Your task to perform on an android device: turn pop-ups off in chrome Image 0: 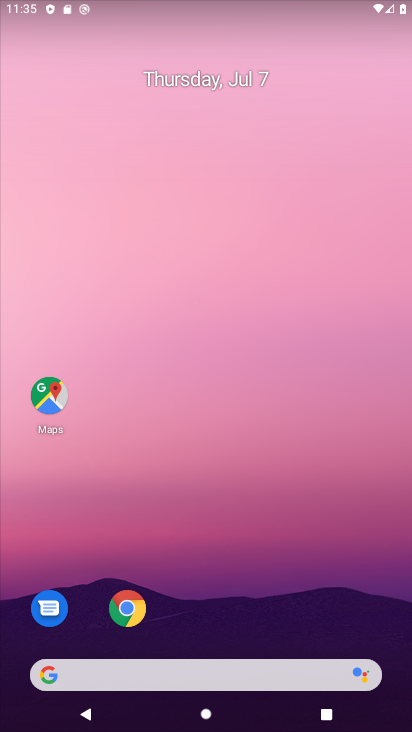
Step 0: click (138, 599)
Your task to perform on an android device: turn pop-ups off in chrome Image 1: 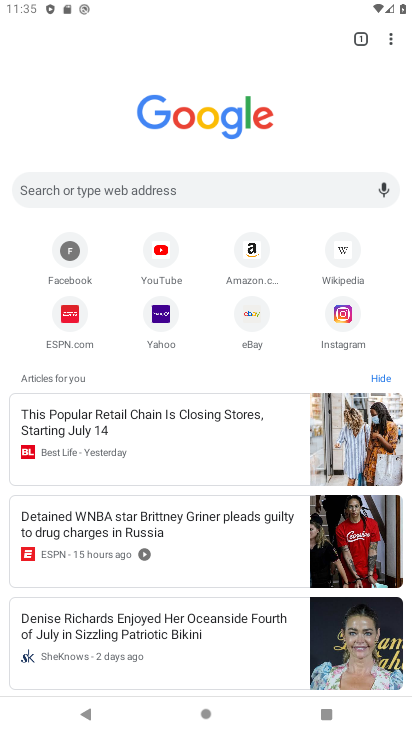
Step 1: click (390, 49)
Your task to perform on an android device: turn pop-ups off in chrome Image 2: 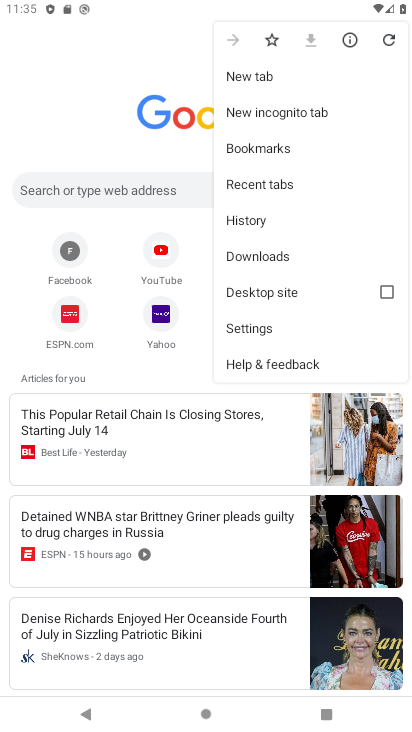
Step 2: click (257, 322)
Your task to perform on an android device: turn pop-ups off in chrome Image 3: 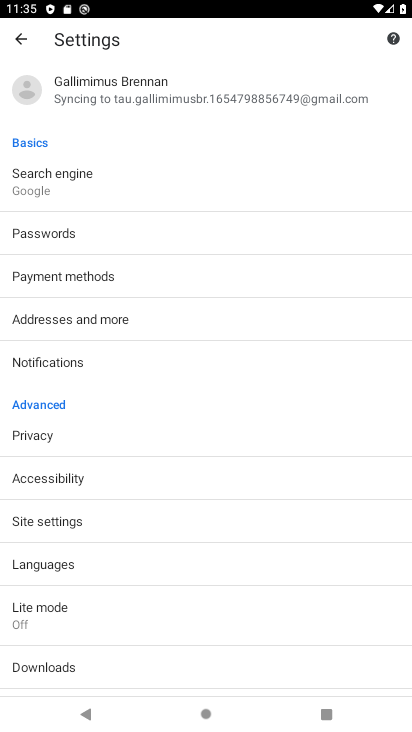
Step 3: click (97, 527)
Your task to perform on an android device: turn pop-ups off in chrome Image 4: 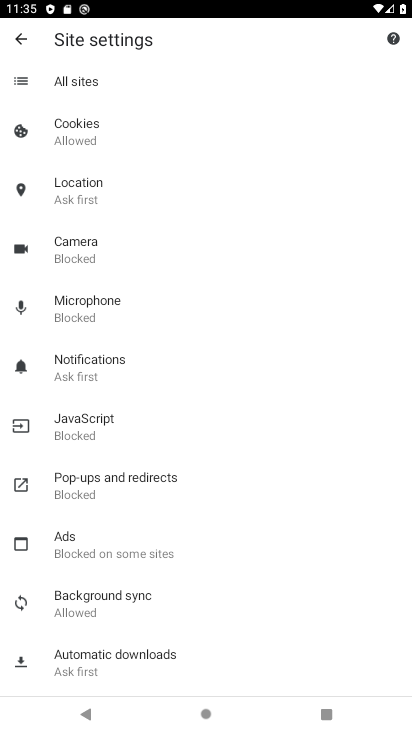
Step 4: click (148, 475)
Your task to perform on an android device: turn pop-ups off in chrome Image 5: 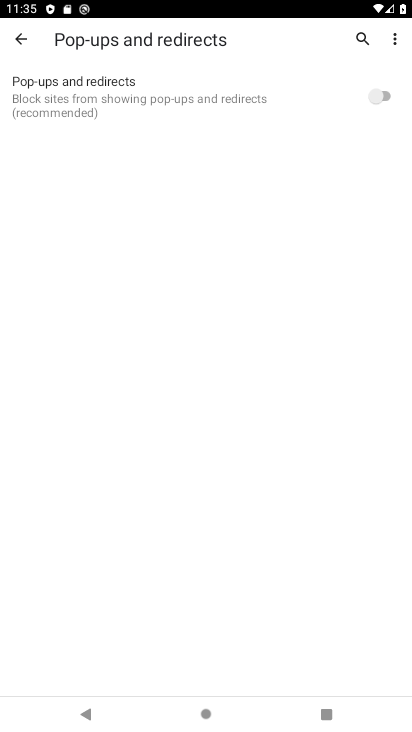
Step 5: click (355, 96)
Your task to perform on an android device: turn pop-ups off in chrome Image 6: 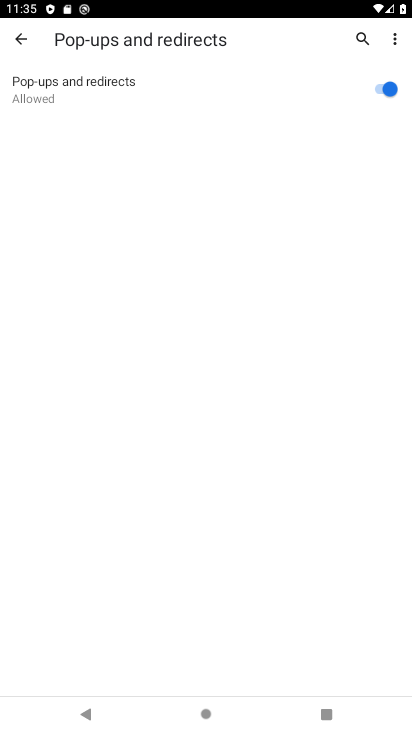
Step 6: click (373, 95)
Your task to perform on an android device: turn pop-ups off in chrome Image 7: 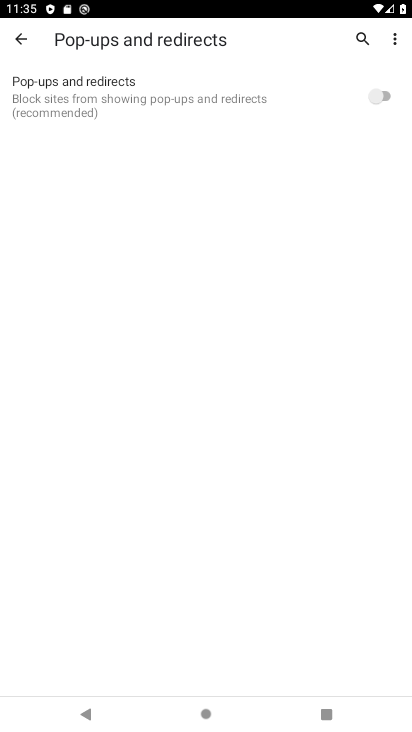
Step 7: task complete